Your task to perform on an android device: create a new album in the google photos Image 0: 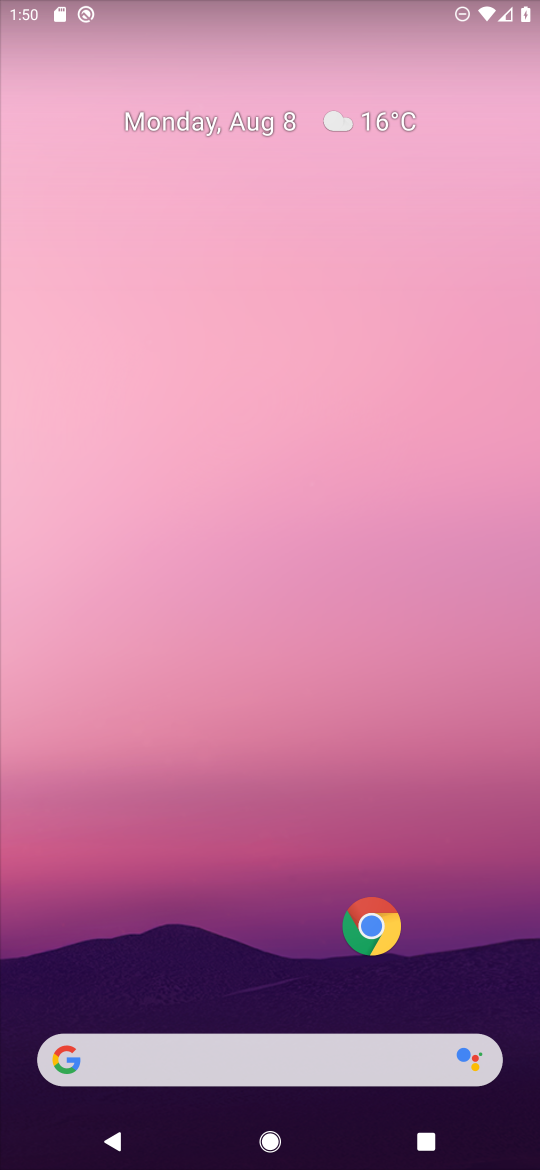
Step 0: drag from (280, 980) to (229, 466)
Your task to perform on an android device: create a new album in the google photos Image 1: 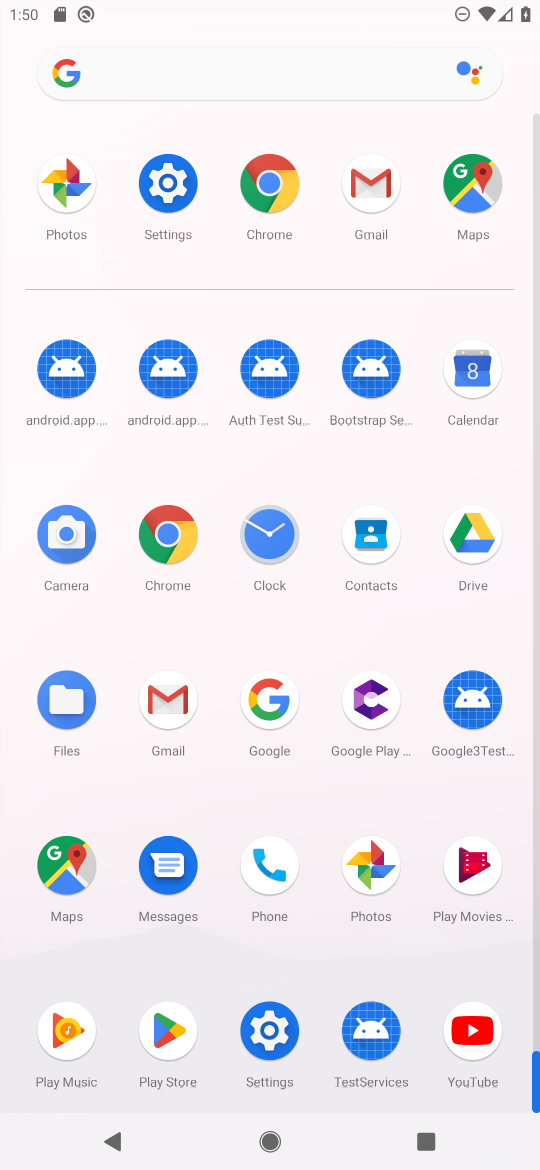
Step 1: click (351, 869)
Your task to perform on an android device: create a new album in the google photos Image 2: 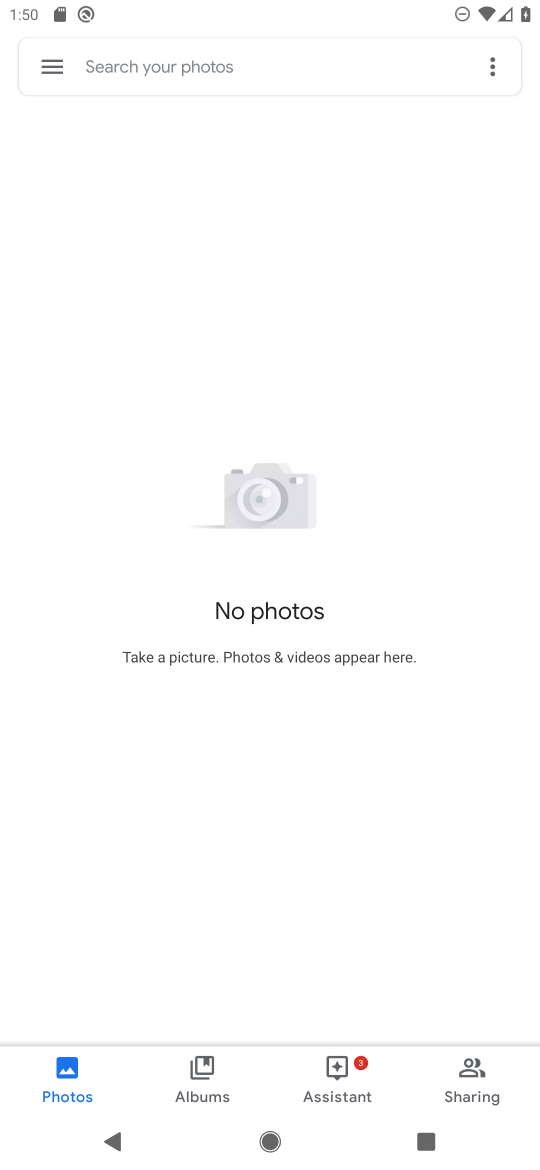
Step 2: click (214, 1046)
Your task to perform on an android device: create a new album in the google photos Image 3: 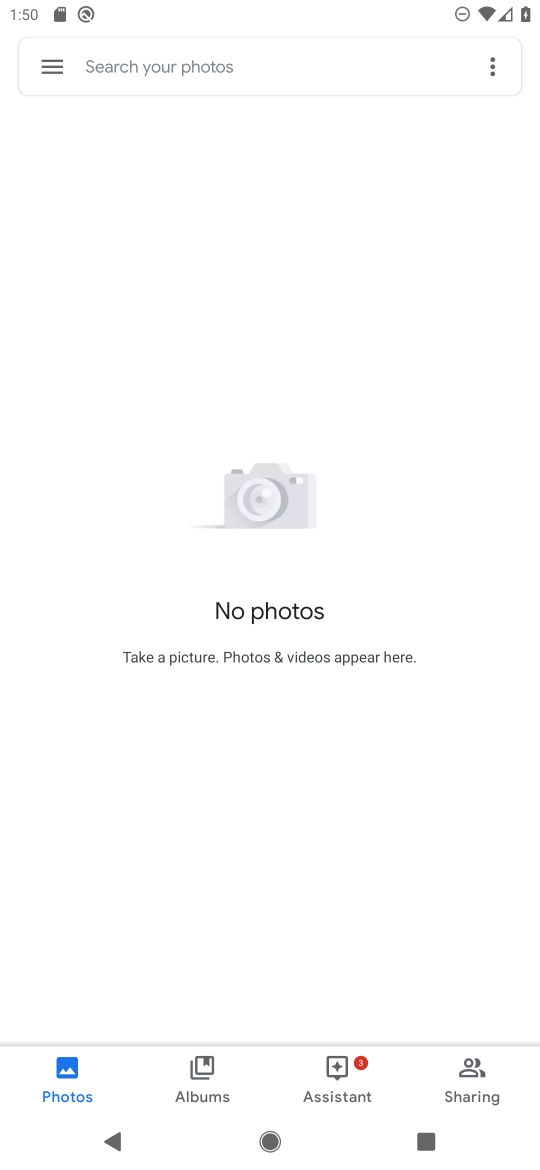
Step 3: task complete